Your task to perform on an android device: Open accessibility settings Image 0: 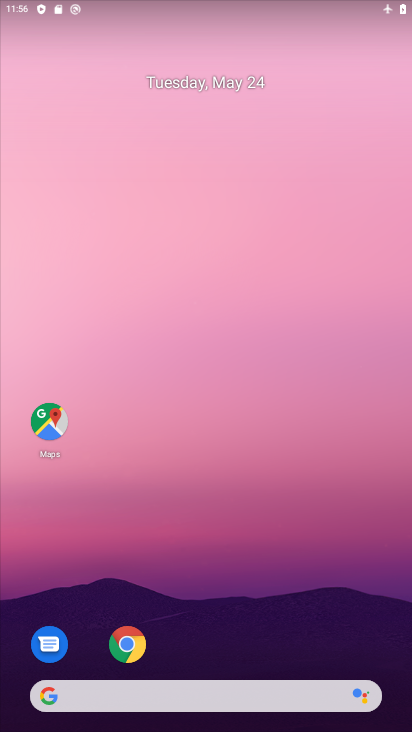
Step 0: drag from (176, 674) to (269, 212)
Your task to perform on an android device: Open accessibility settings Image 1: 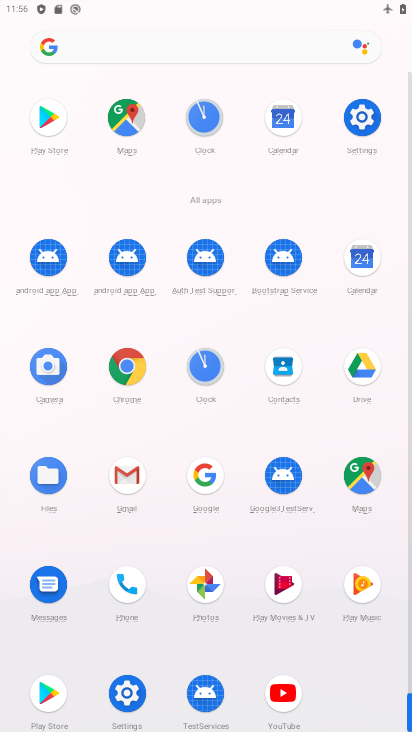
Step 1: drag from (137, 639) to (180, 426)
Your task to perform on an android device: Open accessibility settings Image 2: 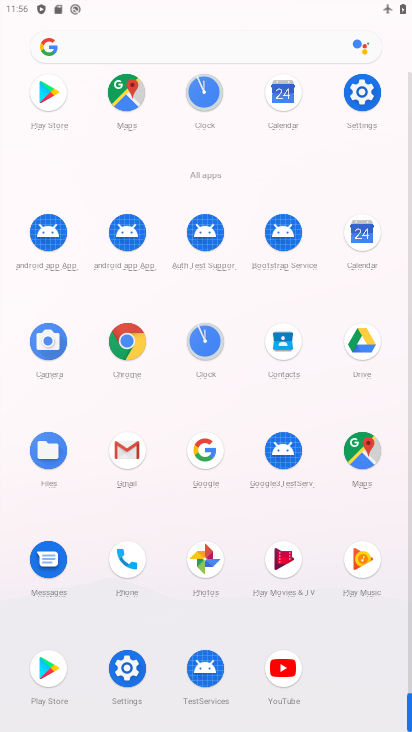
Step 2: click (135, 660)
Your task to perform on an android device: Open accessibility settings Image 3: 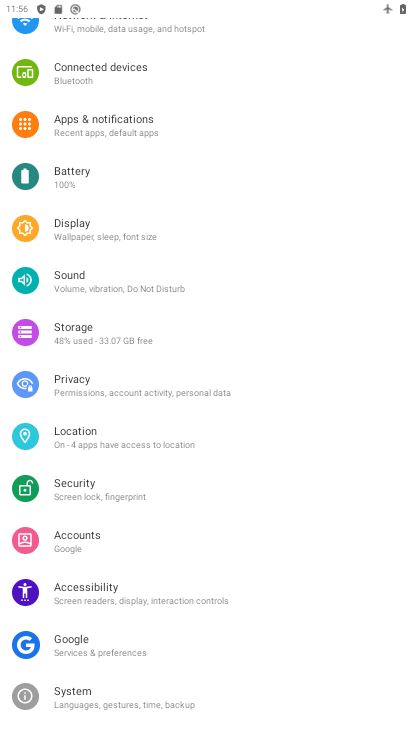
Step 3: click (99, 602)
Your task to perform on an android device: Open accessibility settings Image 4: 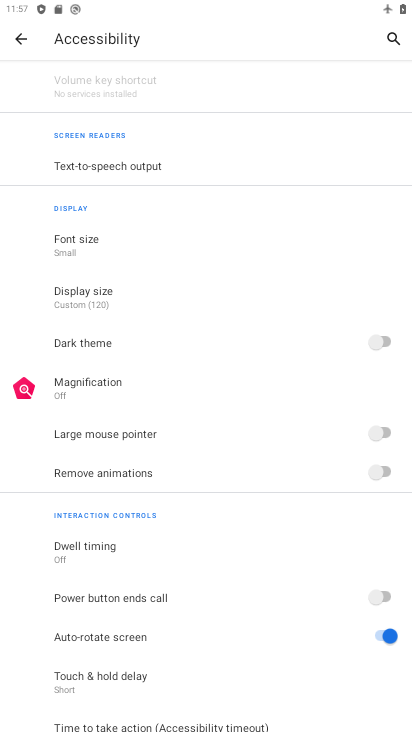
Step 4: task complete